Your task to perform on an android device: Open wifi settings Image 0: 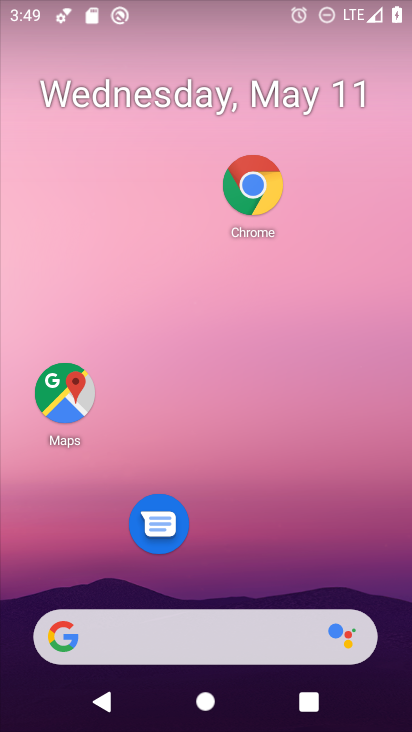
Step 0: drag from (231, 559) to (179, 75)
Your task to perform on an android device: Open wifi settings Image 1: 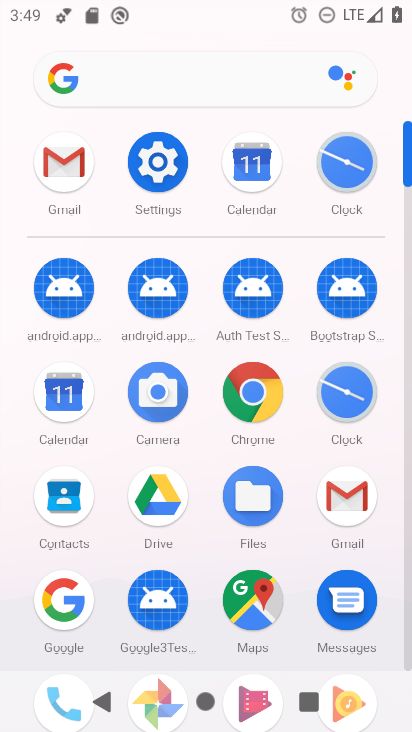
Step 1: click (176, 154)
Your task to perform on an android device: Open wifi settings Image 2: 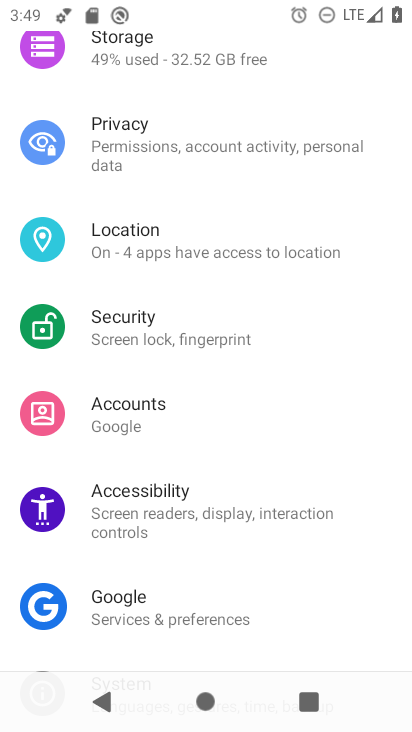
Step 2: drag from (243, 201) to (194, 580)
Your task to perform on an android device: Open wifi settings Image 3: 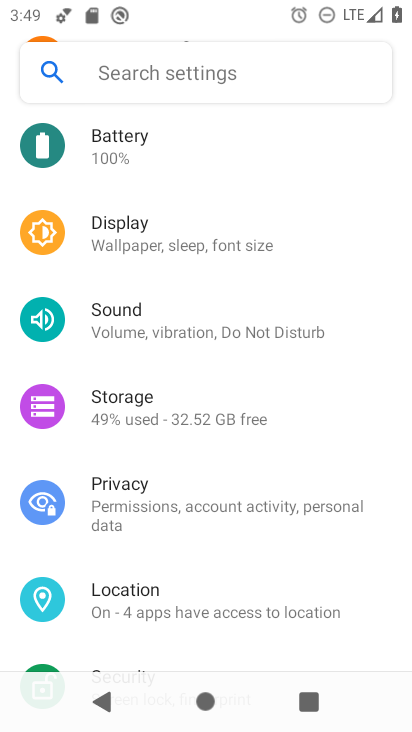
Step 3: drag from (228, 284) to (259, 570)
Your task to perform on an android device: Open wifi settings Image 4: 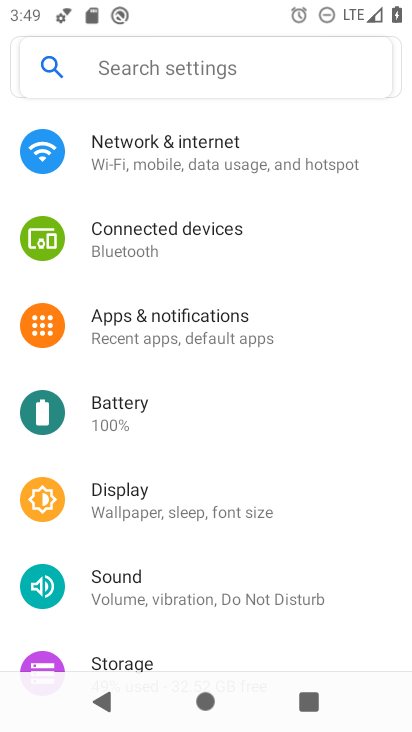
Step 4: click (236, 150)
Your task to perform on an android device: Open wifi settings Image 5: 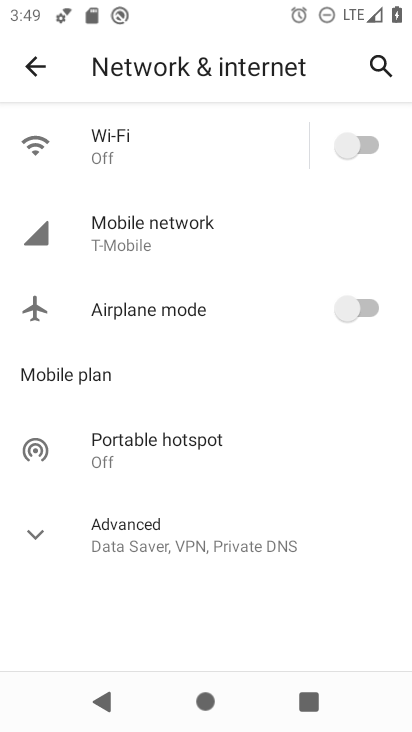
Step 5: click (175, 142)
Your task to perform on an android device: Open wifi settings Image 6: 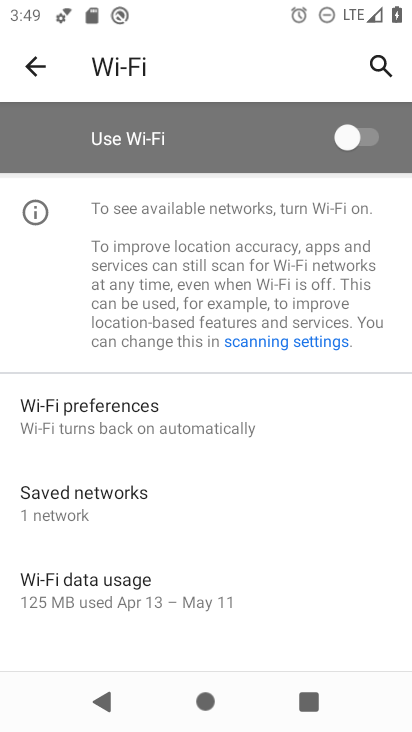
Step 6: task complete